Your task to perform on an android device: Go to accessibility settings Image 0: 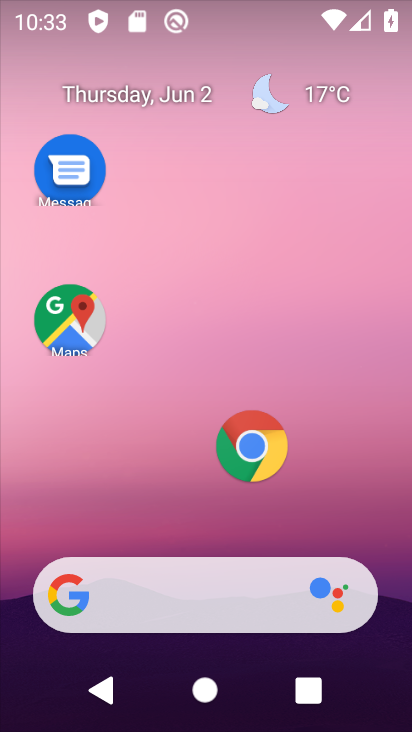
Step 0: press home button
Your task to perform on an android device: Go to accessibility settings Image 1: 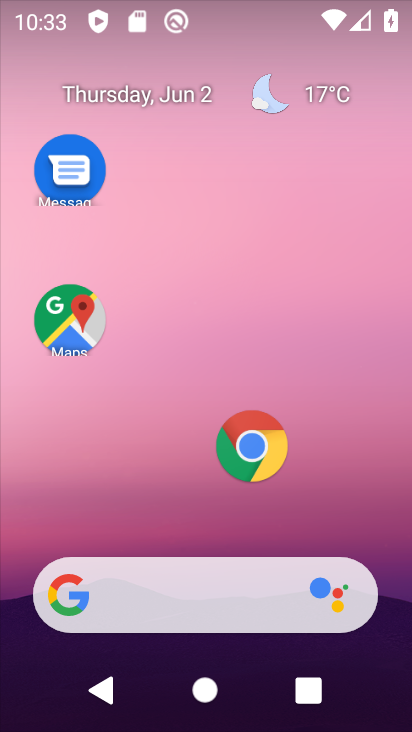
Step 1: drag from (349, 505) to (352, 208)
Your task to perform on an android device: Go to accessibility settings Image 2: 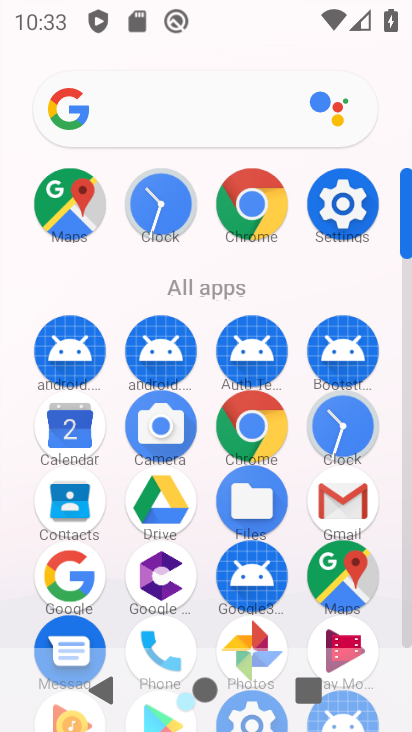
Step 2: drag from (268, 610) to (246, 297)
Your task to perform on an android device: Go to accessibility settings Image 3: 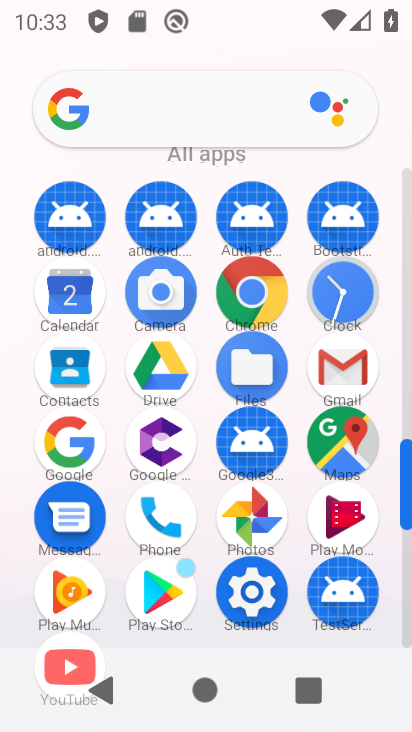
Step 3: click (249, 600)
Your task to perform on an android device: Go to accessibility settings Image 4: 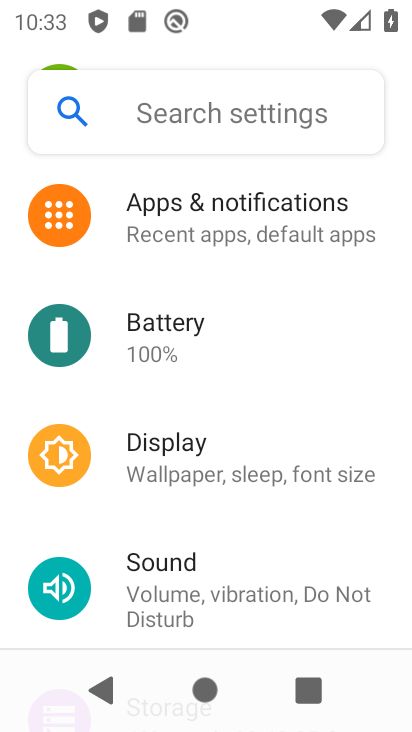
Step 4: drag from (250, 594) to (260, 191)
Your task to perform on an android device: Go to accessibility settings Image 5: 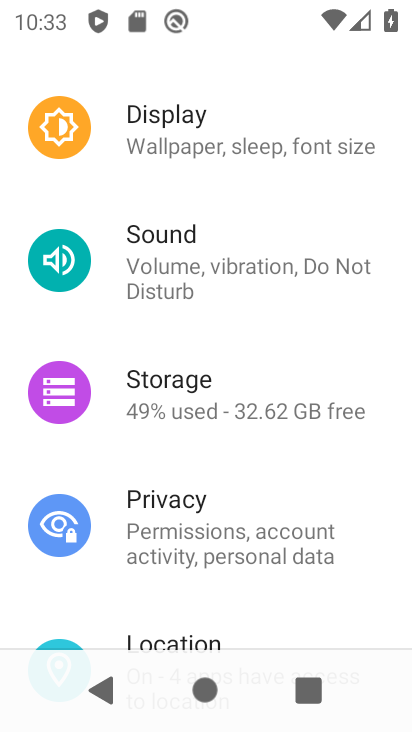
Step 5: drag from (267, 468) to (218, 88)
Your task to perform on an android device: Go to accessibility settings Image 6: 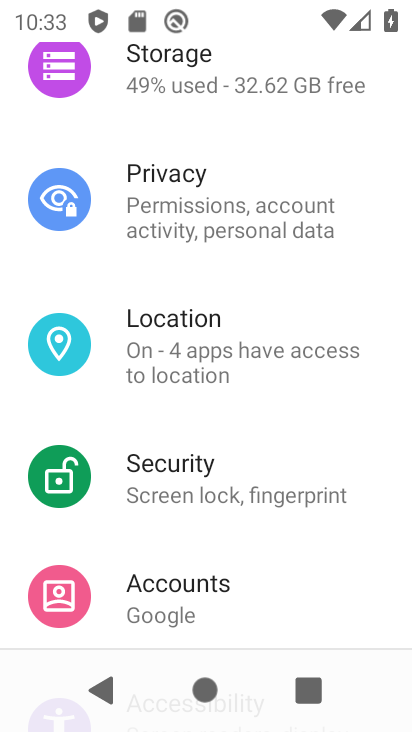
Step 6: drag from (245, 713) to (234, 433)
Your task to perform on an android device: Go to accessibility settings Image 7: 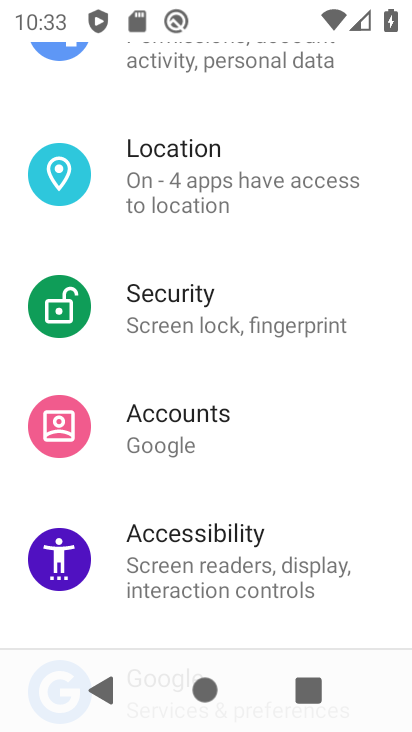
Step 7: drag from (241, 616) to (247, 567)
Your task to perform on an android device: Go to accessibility settings Image 8: 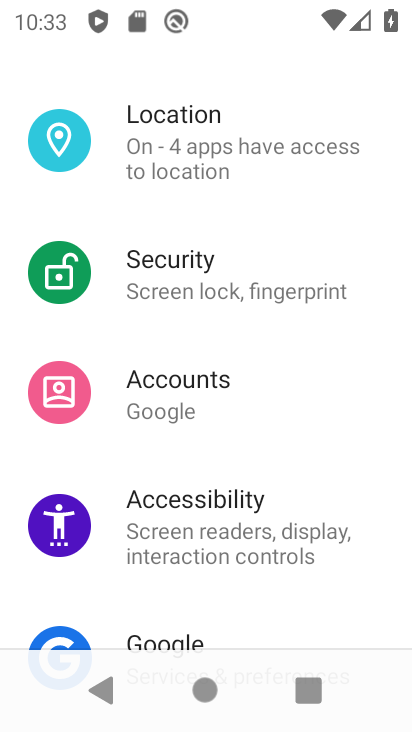
Step 8: click (229, 545)
Your task to perform on an android device: Go to accessibility settings Image 9: 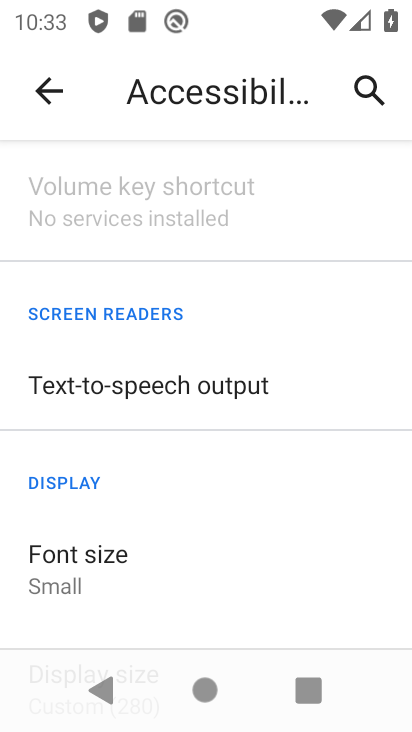
Step 9: task complete